Your task to perform on an android device: turn on showing notifications on the lock screen Image 0: 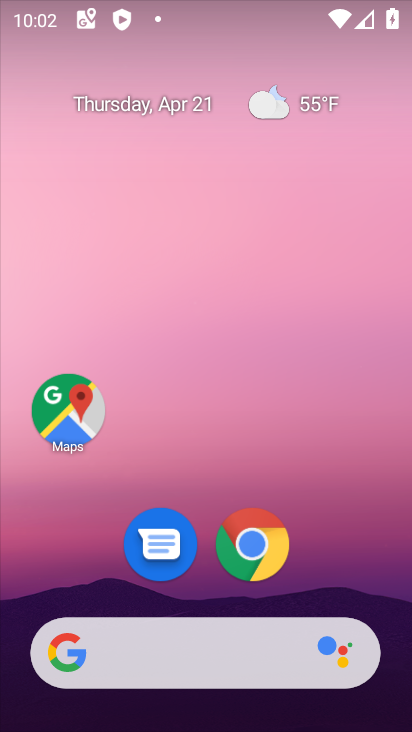
Step 0: drag from (352, 515) to (257, 28)
Your task to perform on an android device: turn on showing notifications on the lock screen Image 1: 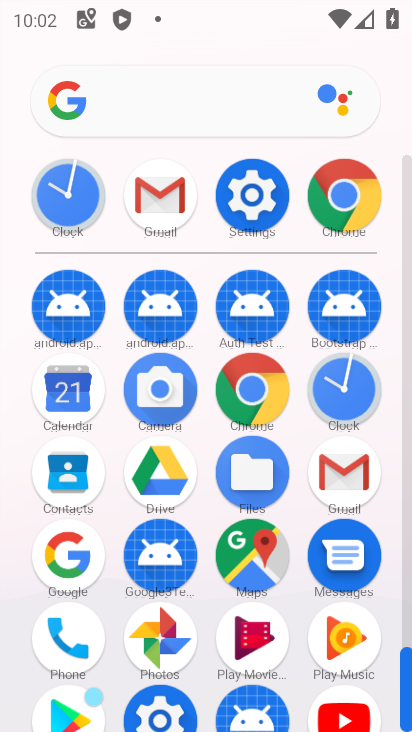
Step 1: click (252, 195)
Your task to perform on an android device: turn on showing notifications on the lock screen Image 2: 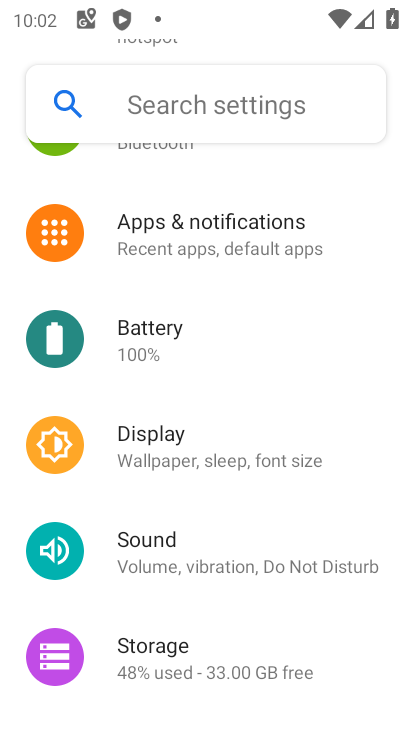
Step 2: click (239, 231)
Your task to perform on an android device: turn on showing notifications on the lock screen Image 3: 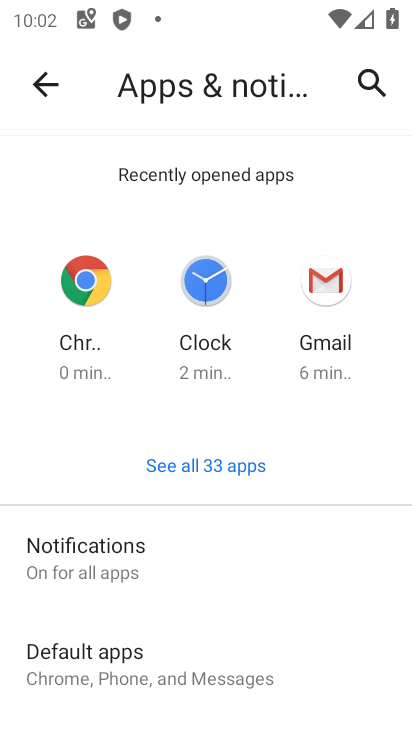
Step 3: drag from (265, 603) to (266, 264)
Your task to perform on an android device: turn on showing notifications on the lock screen Image 4: 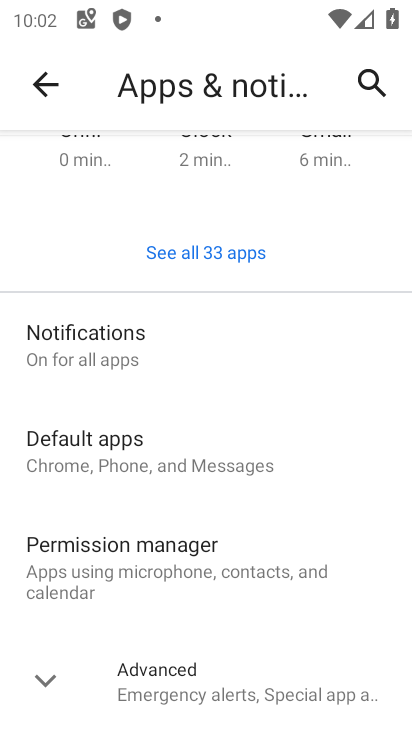
Step 4: click (176, 344)
Your task to perform on an android device: turn on showing notifications on the lock screen Image 5: 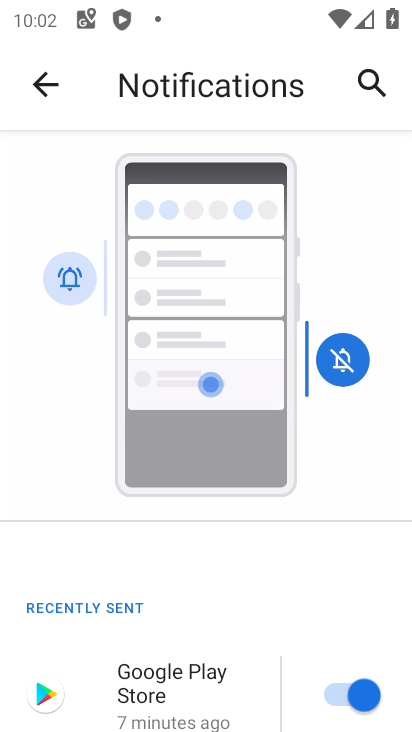
Step 5: drag from (198, 609) to (210, 129)
Your task to perform on an android device: turn on showing notifications on the lock screen Image 6: 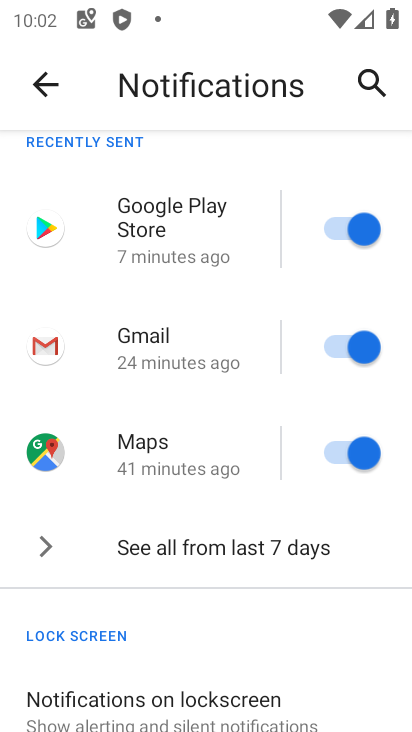
Step 6: drag from (198, 559) to (190, 307)
Your task to perform on an android device: turn on showing notifications on the lock screen Image 7: 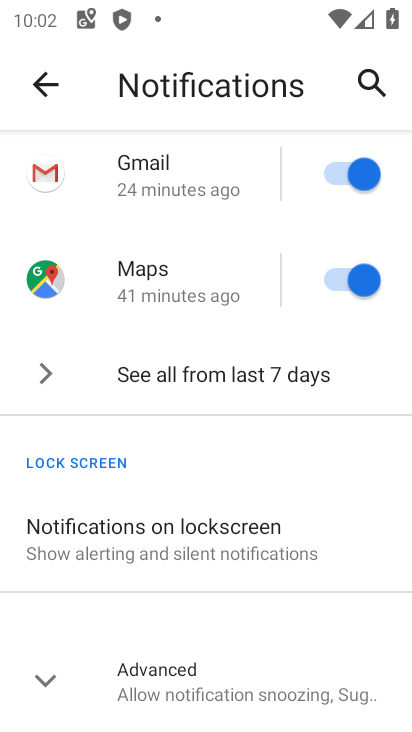
Step 7: click (189, 556)
Your task to perform on an android device: turn on showing notifications on the lock screen Image 8: 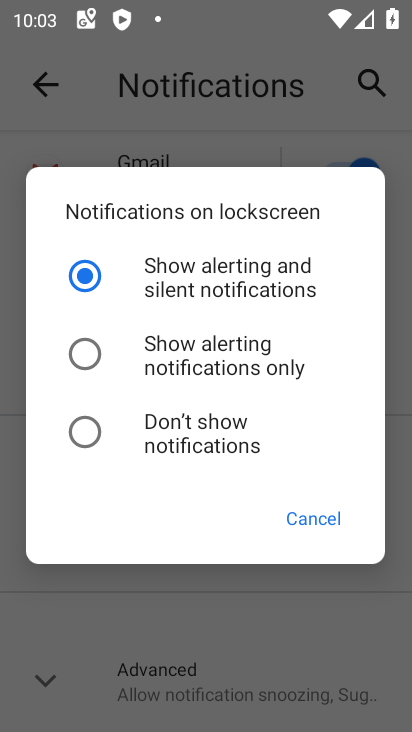
Step 8: click (194, 293)
Your task to perform on an android device: turn on showing notifications on the lock screen Image 9: 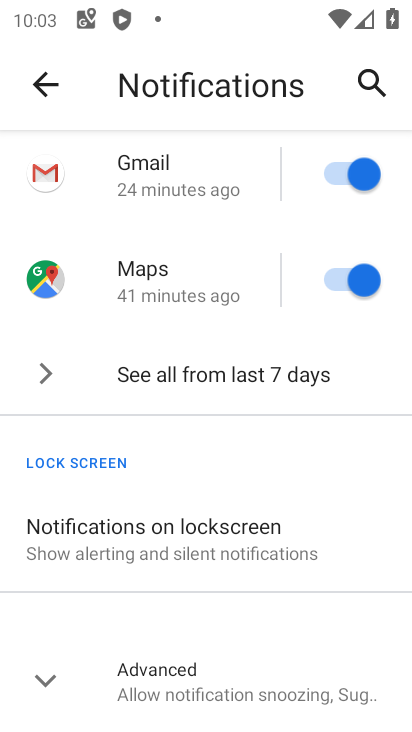
Step 9: task complete